Your task to perform on an android device: turn on improve location accuracy Image 0: 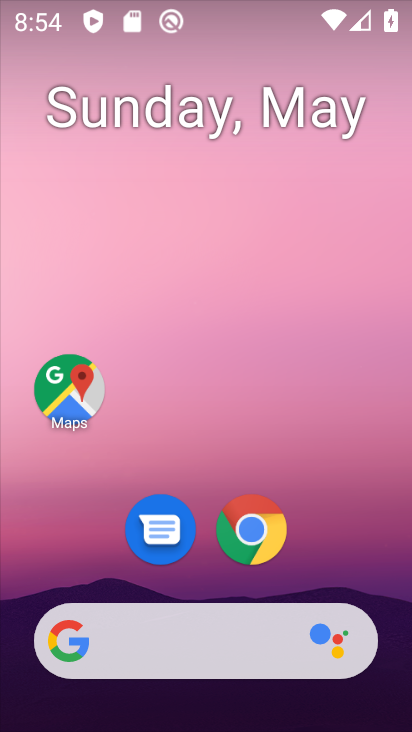
Step 0: drag from (335, 487) to (401, 102)
Your task to perform on an android device: turn on improve location accuracy Image 1: 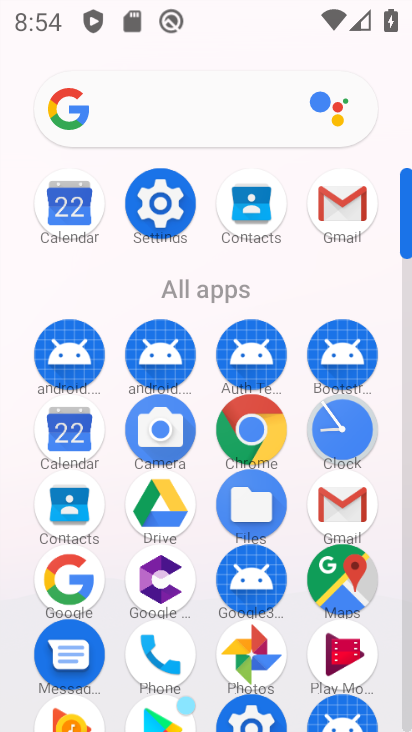
Step 1: click (159, 200)
Your task to perform on an android device: turn on improve location accuracy Image 2: 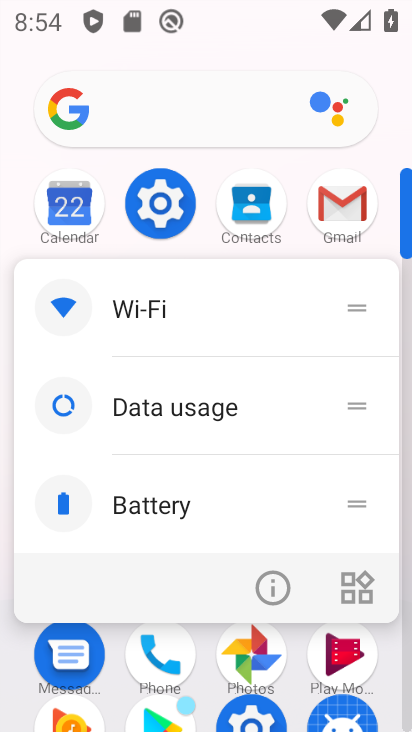
Step 2: click (164, 197)
Your task to perform on an android device: turn on improve location accuracy Image 3: 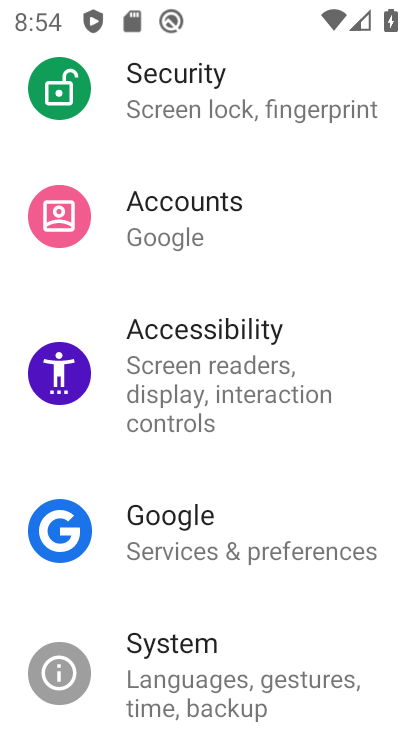
Step 3: drag from (235, 264) to (275, 573)
Your task to perform on an android device: turn on improve location accuracy Image 4: 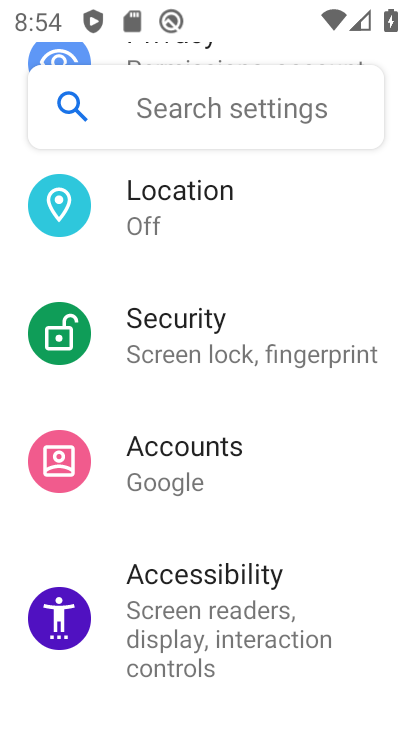
Step 4: click (162, 225)
Your task to perform on an android device: turn on improve location accuracy Image 5: 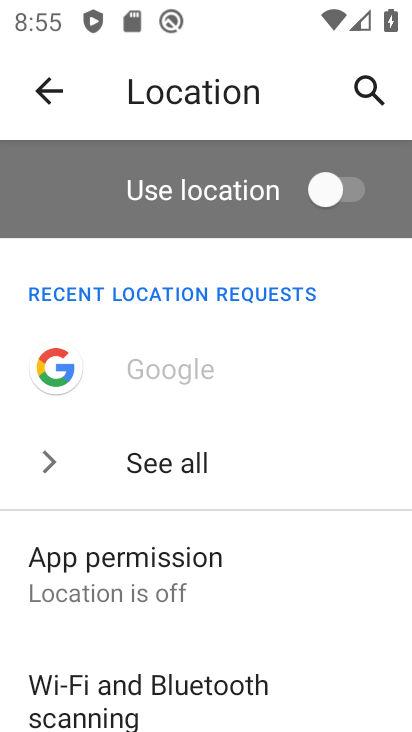
Step 5: drag from (228, 567) to (264, 120)
Your task to perform on an android device: turn on improve location accuracy Image 6: 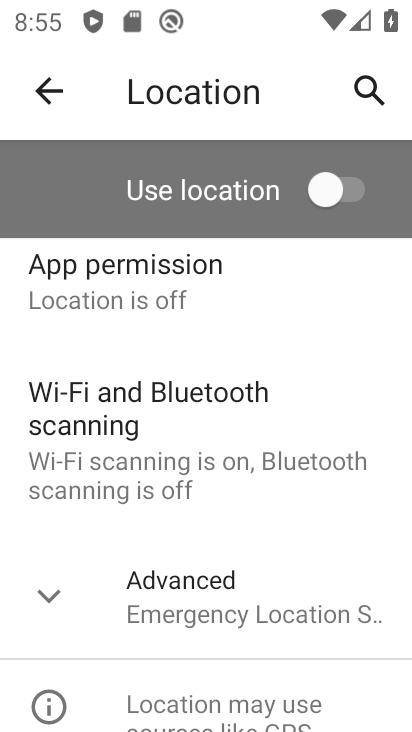
Step 6: click (182, 616)
Your task to perform on an android device: turn on improve location accuracy Image 7: 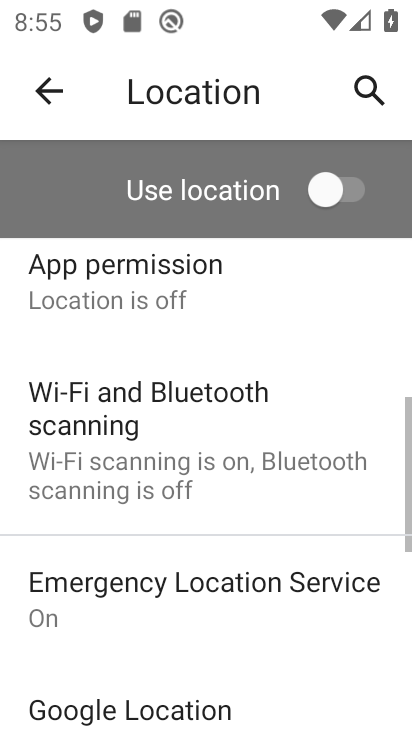
Step 7: drag from (229, 620) to (252, 293)
Your task to perform on an android device: turn on improve location accuracy Image 8: 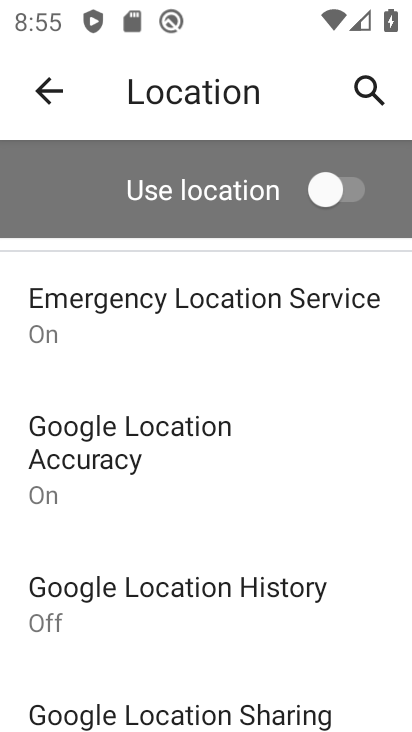
Step 8: click (112, 442)
Your task to perform on an android device: turn on improve location accuracy Image 9: 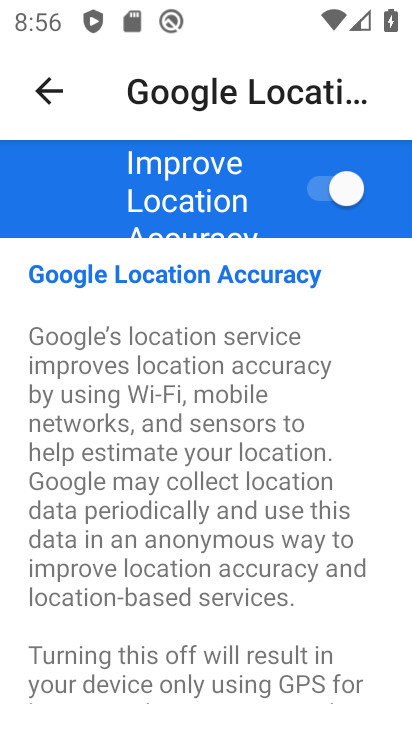
Step 9: task complete